Your task to perform on an android device: Open eBay Image 0: 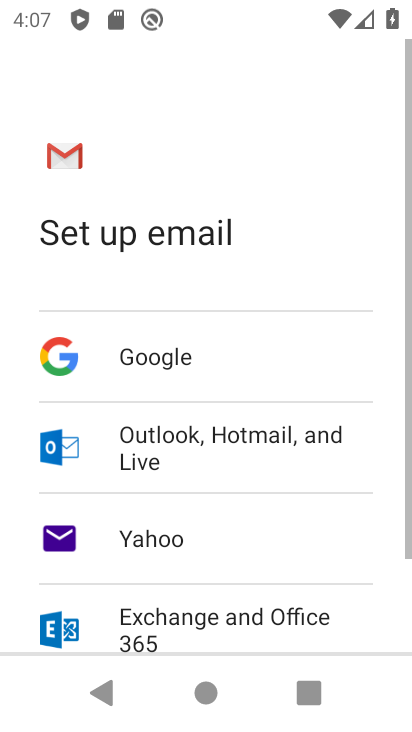
Step 0: press home button
Your task to perform on an android device: Open eBay Image 1: 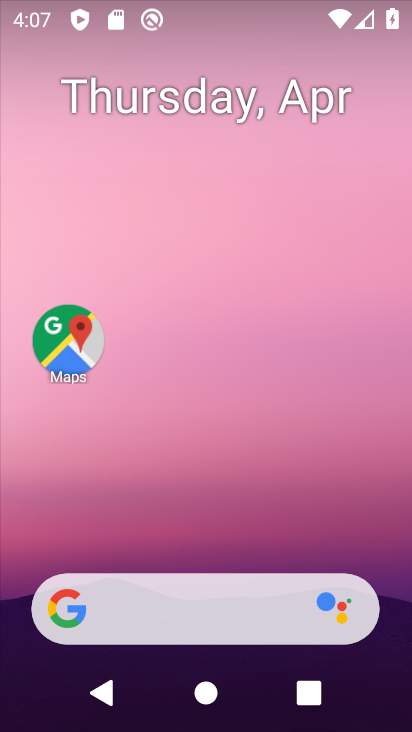
Step 1: drag from (205, 724) to (211, 101)
Your task to perform on an android device: Open eBay Image 2: 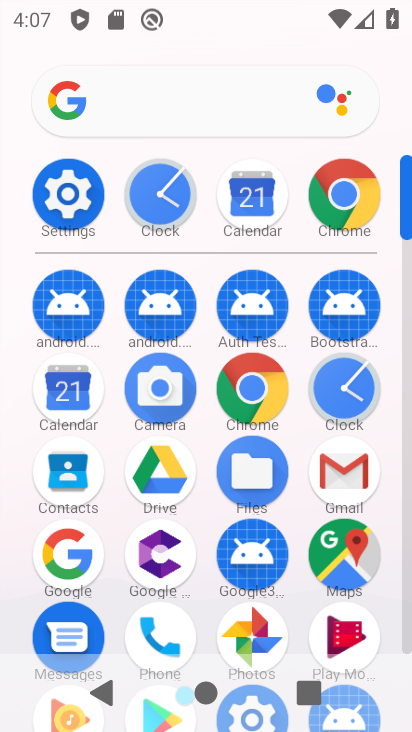
Step 2: click (339, 198)
Your task to perform on an android device: Open eBay Image 3: 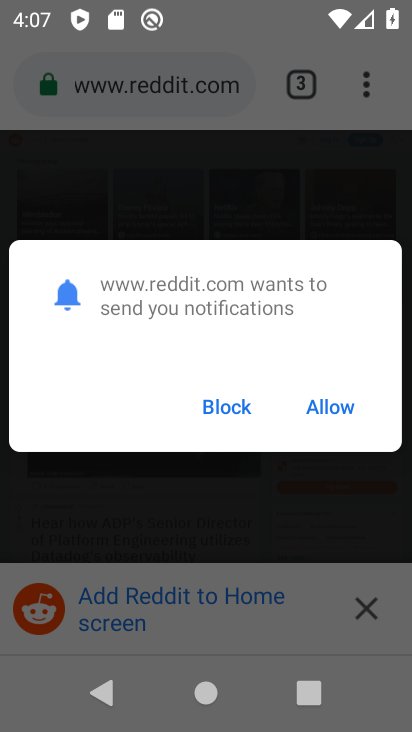
Step 3: click (332, 404)
Your task to perform on an android device: Open eBay Image 4: 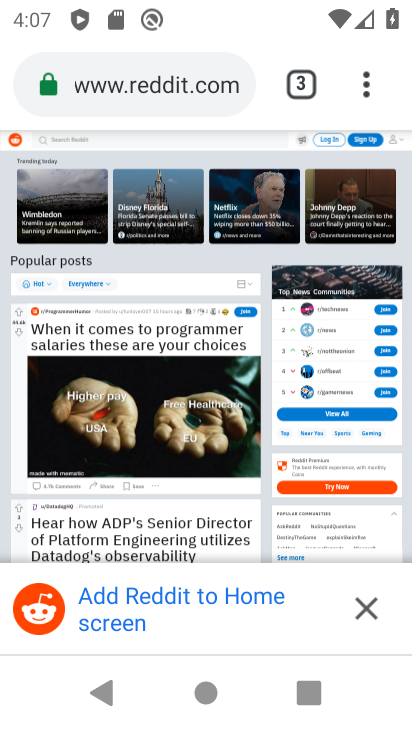
Step 4: drag from (362, 90) to (91, 168)
Your task to perform on an android device: Open eBay Image 5: 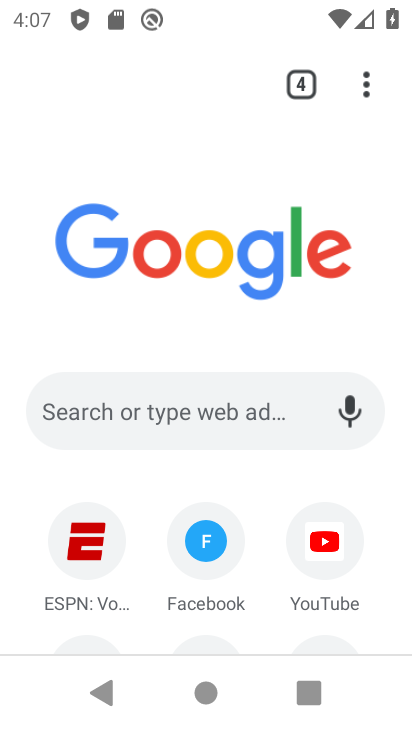
Step 5: click (227, 411)
Your task to perform on an android device: Open eBay Image 6: 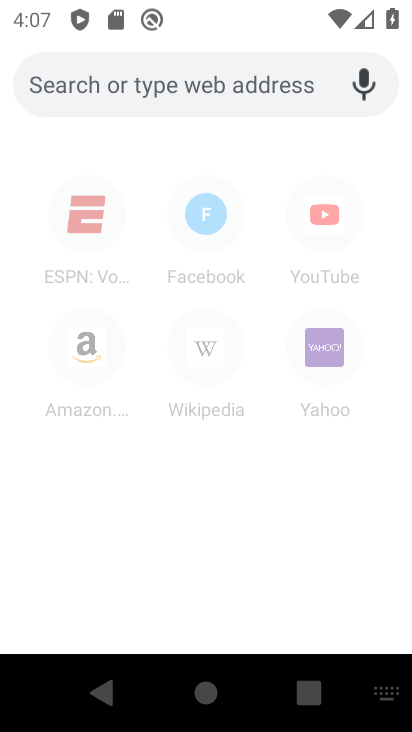
Step 6: type "eBay"
Your task to perform on an android device: Open eBay Image 7: 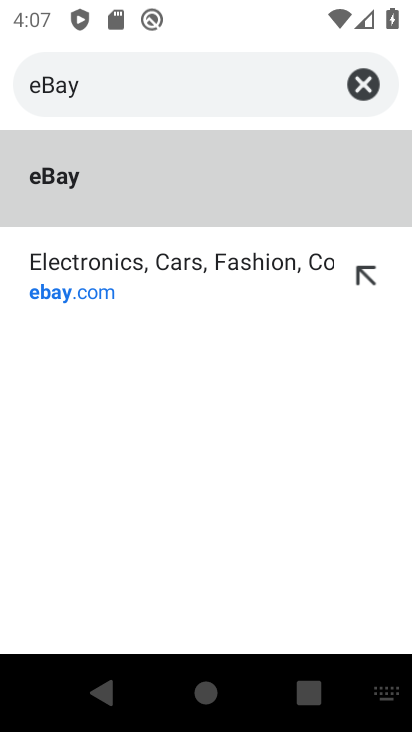
Step 7: click (63, 177)
Your task to perform on an android device: Open eBay Image 8: 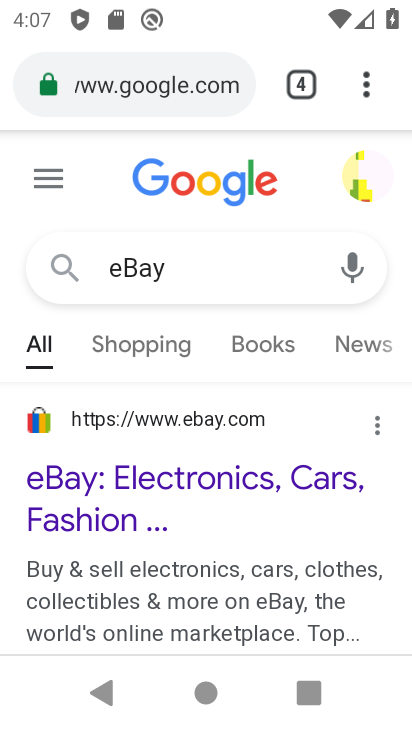
Step 8: click (163, 475)
Your task to perform on an android device: Open eBay Image 9: 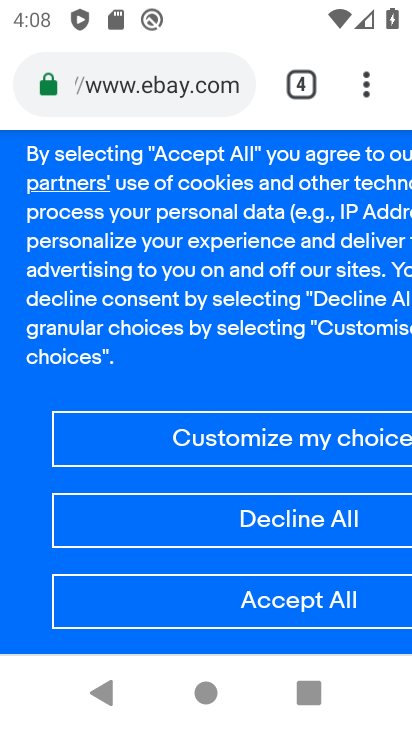
Step 9: task complete